Your task to perform on an android device: turn off wifi Image 0: 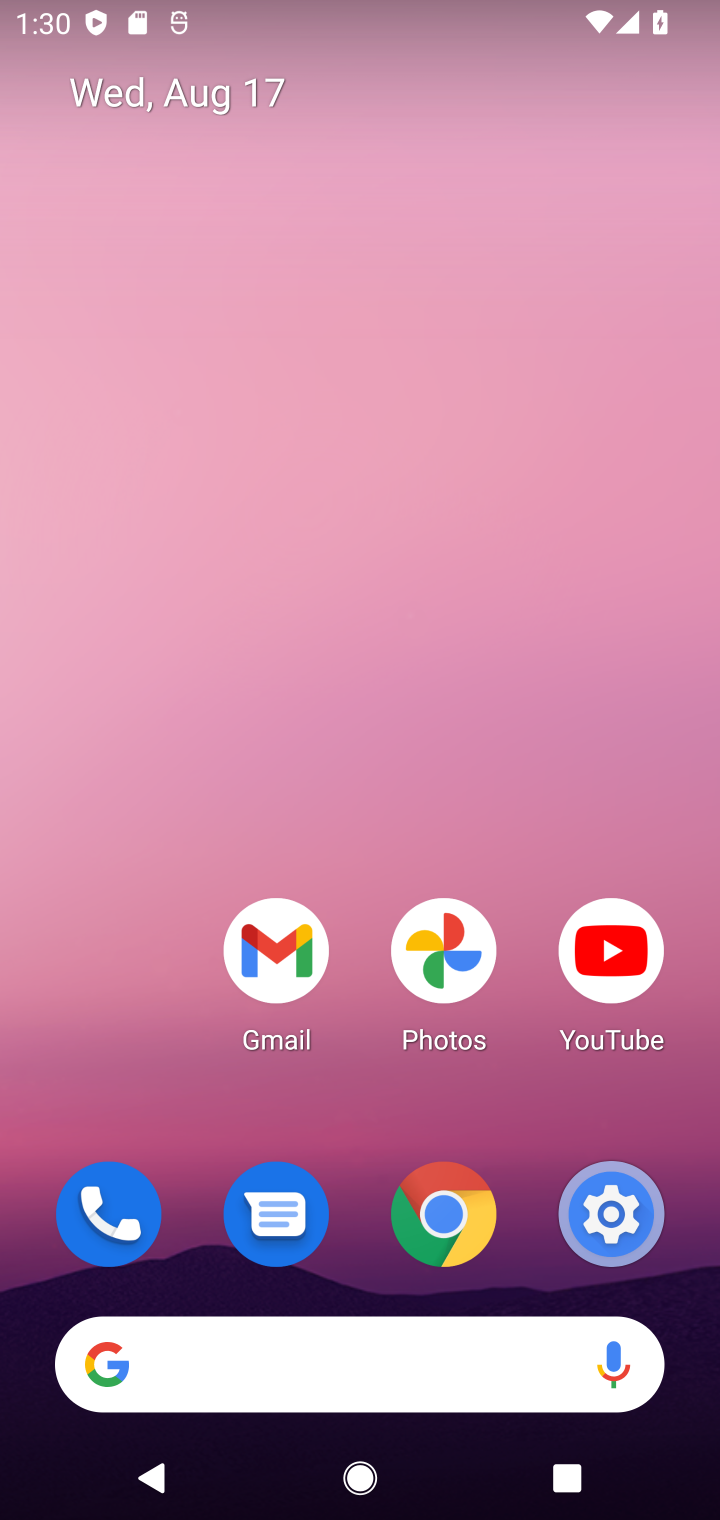
Step 0: drag from (361, 1251) to (367, 197)
Your task to perform on an android device: turn off wifi Image 1: 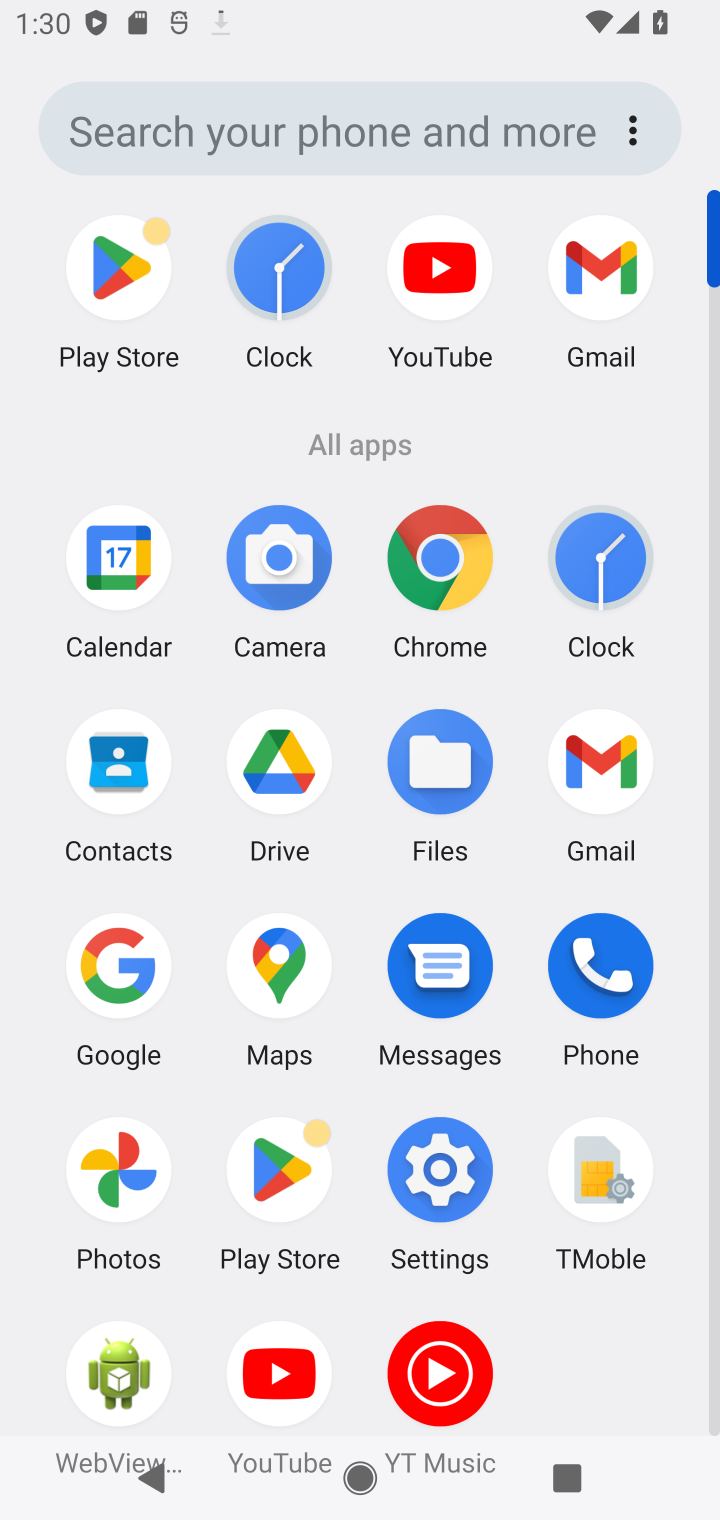
Step 1: click (442, 1171)
Your task to perform on an android device: turn off wifi Image 2: 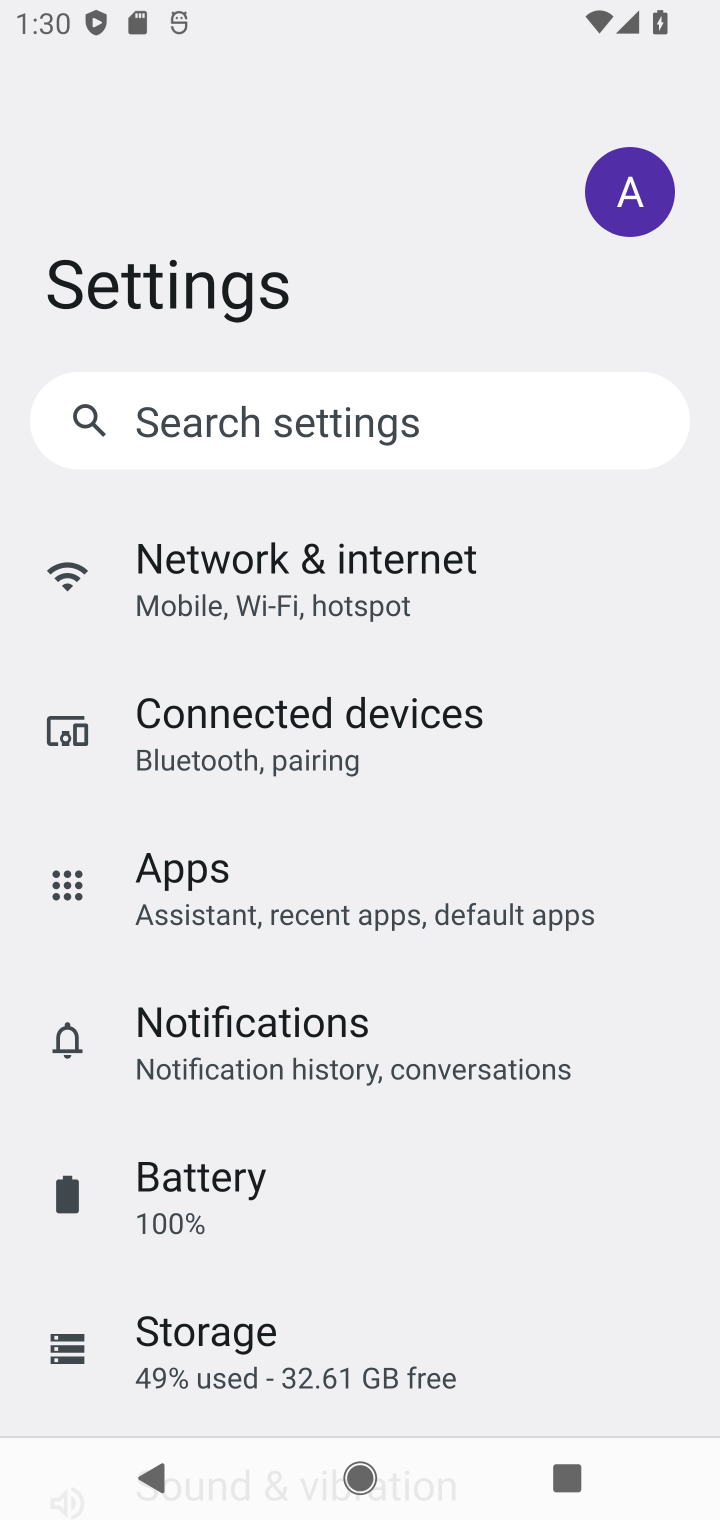
Step 2: click (307, 545)
Your task to perform on an android device: turn off wifi Image 3: 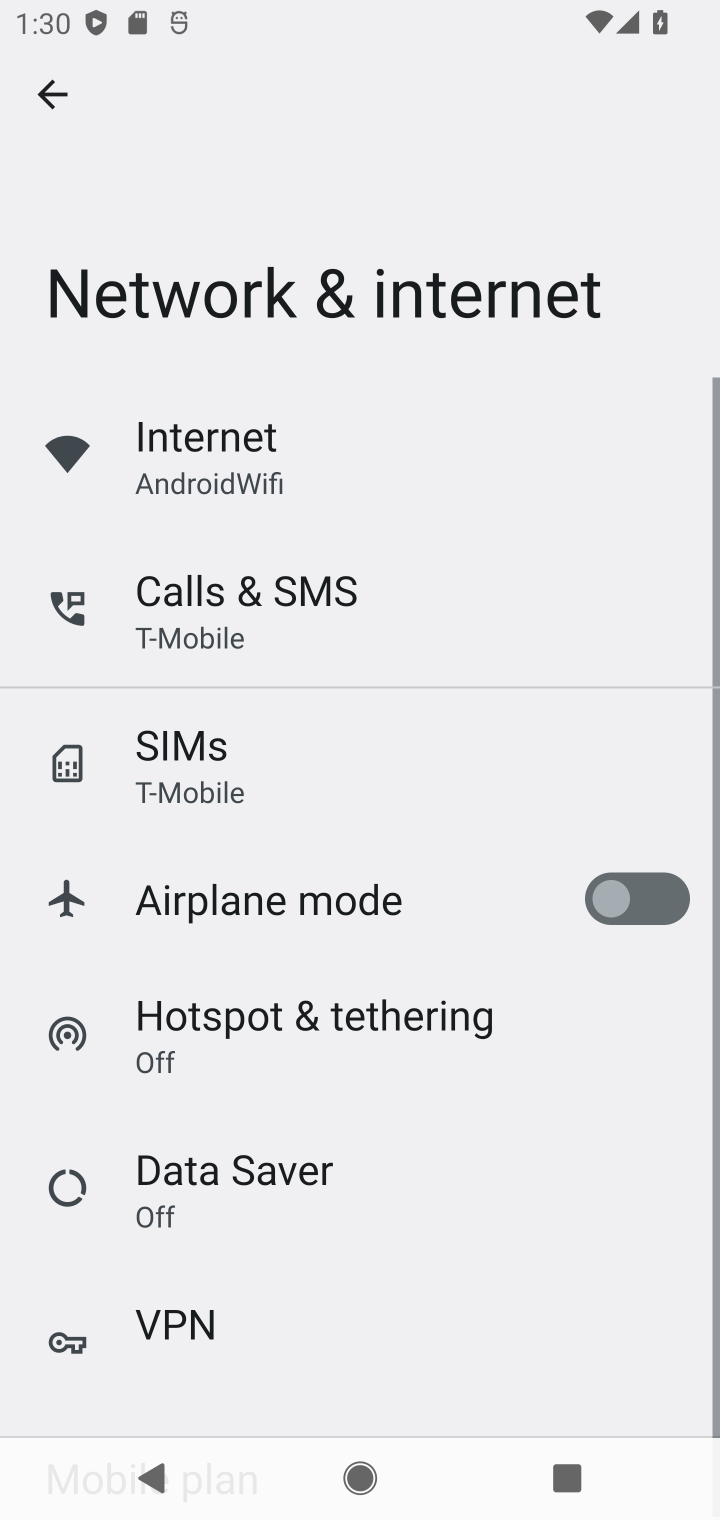
Step 3: click (307, 545)
Your task to perform on an android device: turn off wifi Image 4: 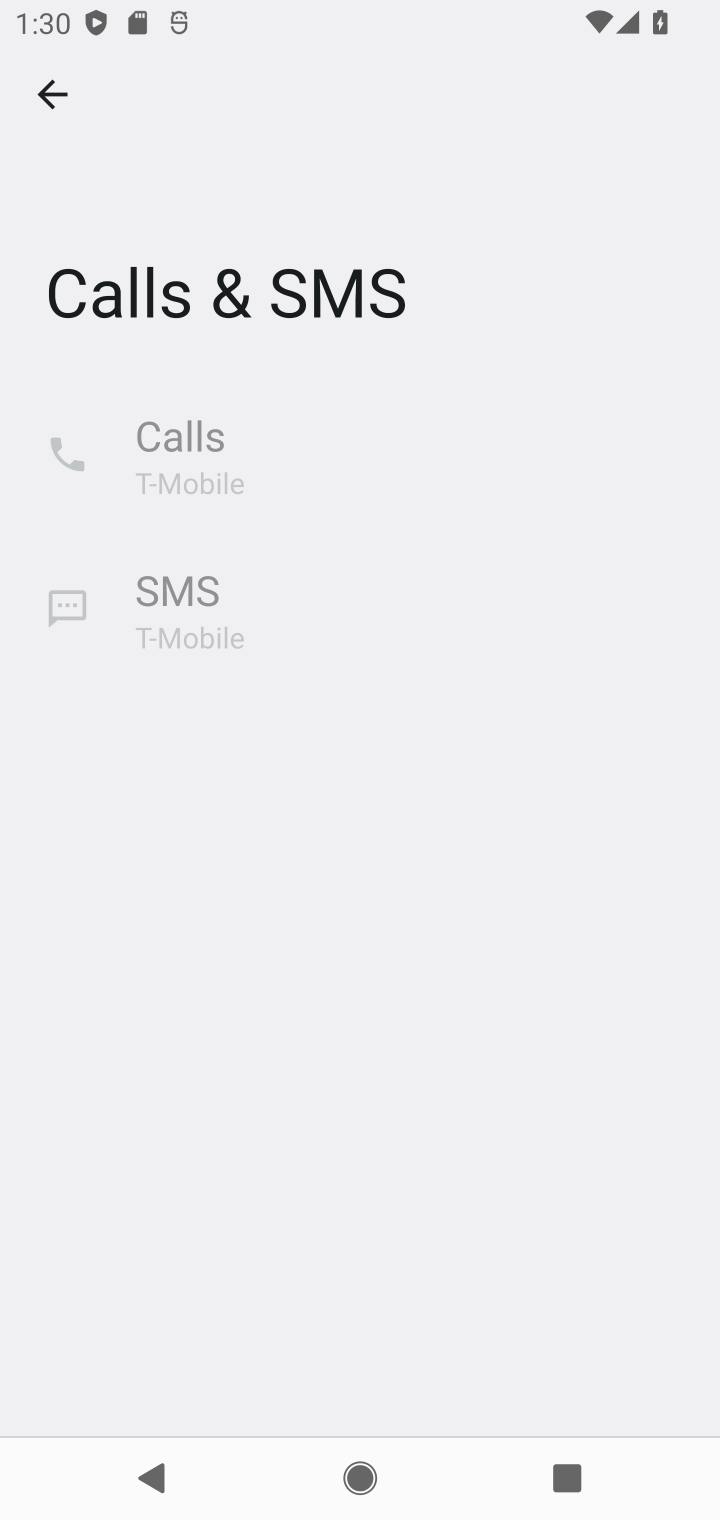
Step 4: click (41, 79)
Your task to perform on an android device: turn off wifi Image 5: 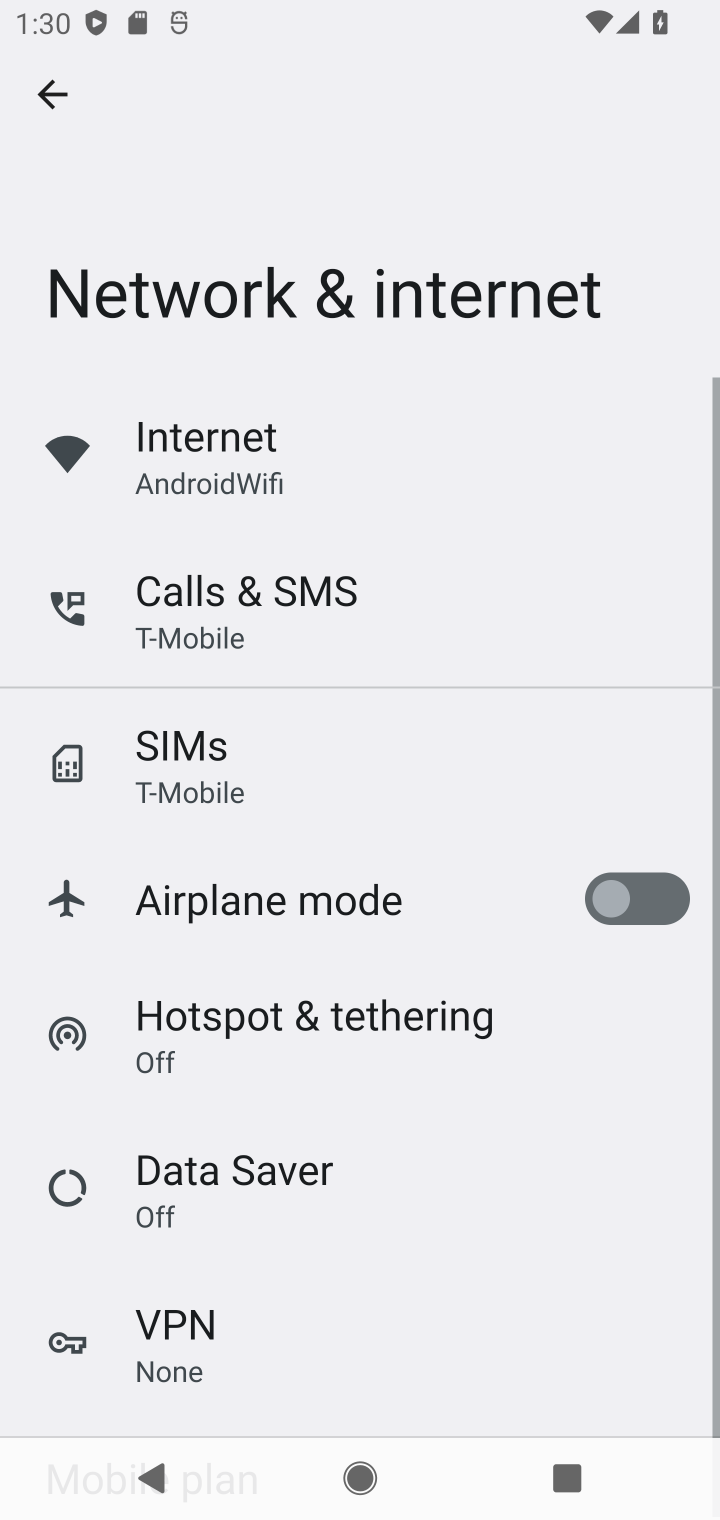
Step 5: click (198, 431)
Your task to perform on an android device: turn off wifi Image 6: 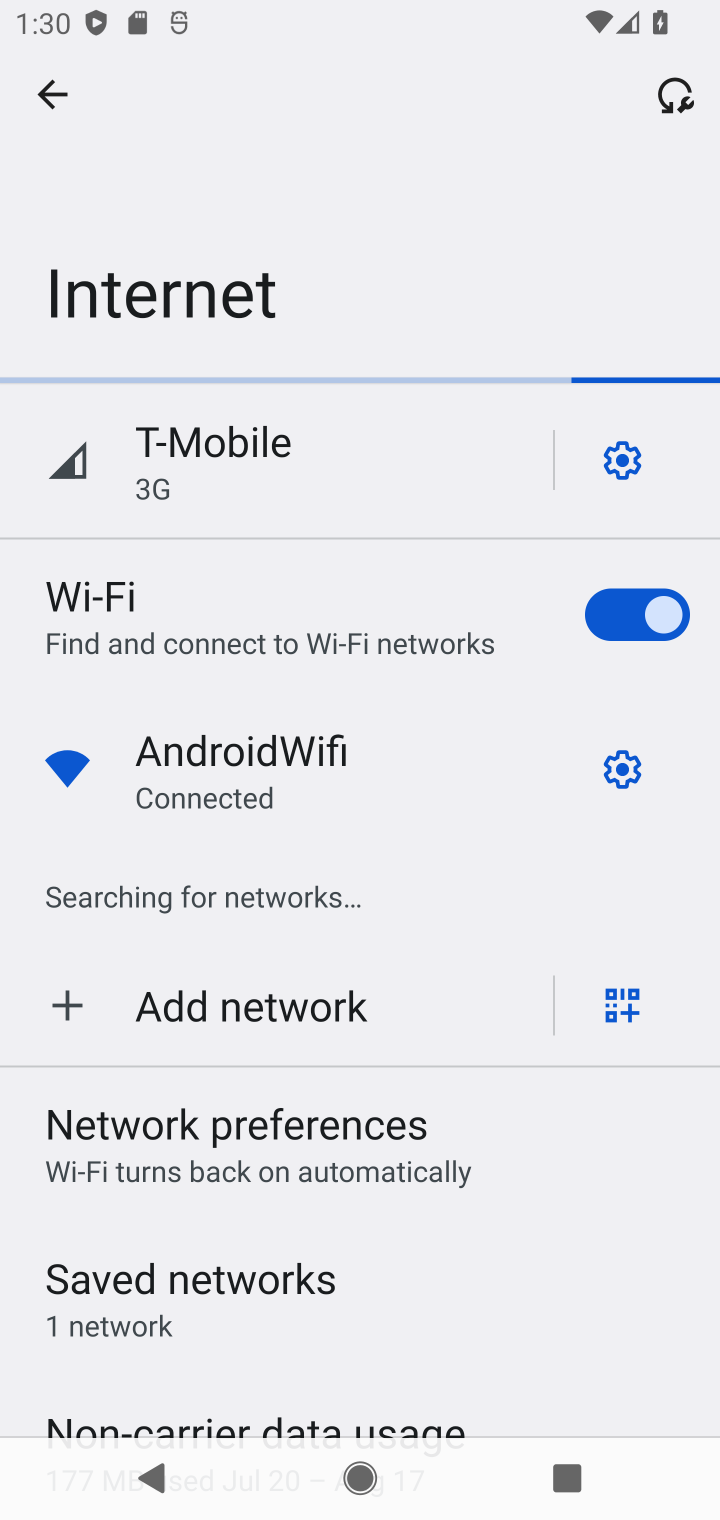
Step 6: click (665, 614)
Your task to perform on an android device: turn off wifi Image 7: 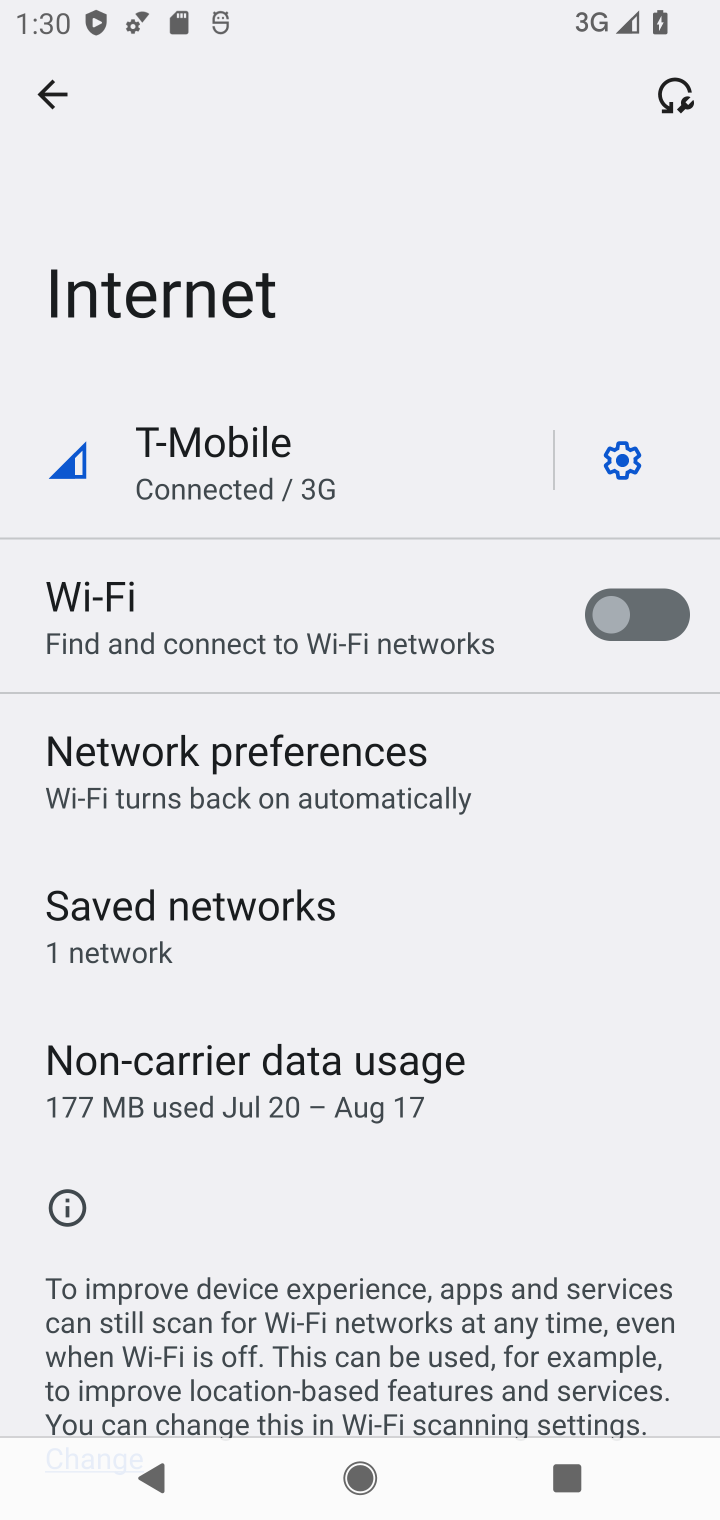
Step 7: task complete